Your task to perform on an android device: change the clock display to analog Image 0: 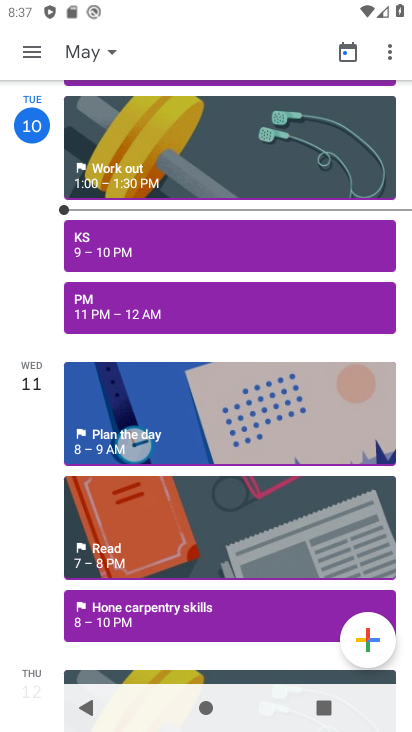
Step 0: press home button
Your task to perform on an android device: change the clock display to analog Image 1: 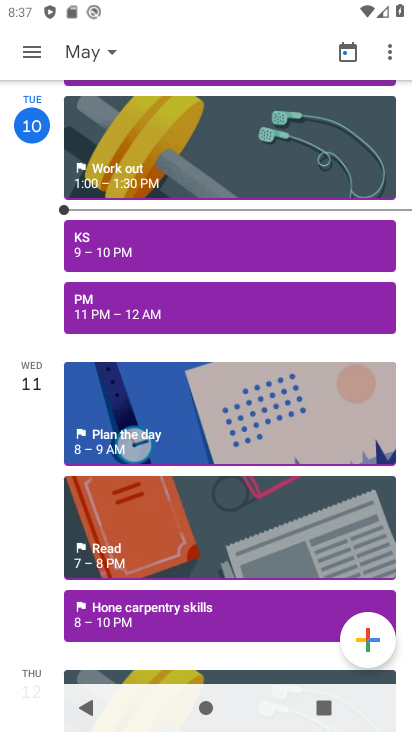
Step 1: press home button
Your task to perform on an android device: change the clock display to analog Image 2: 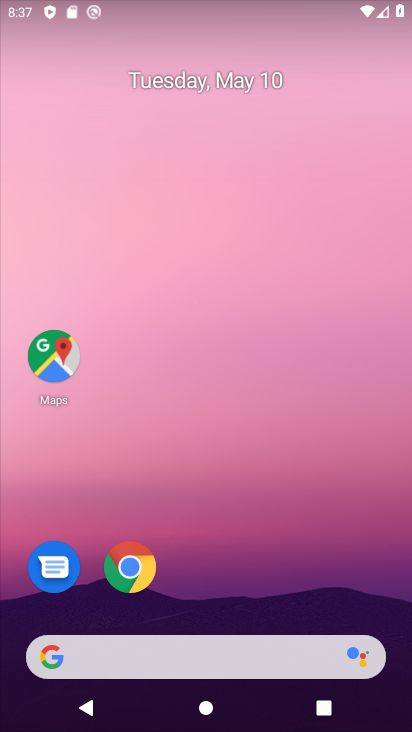
Step 2: drag from (249, 584) to (301, 62)
Your task to perform on an android device: change the clock display to analog Image 3: 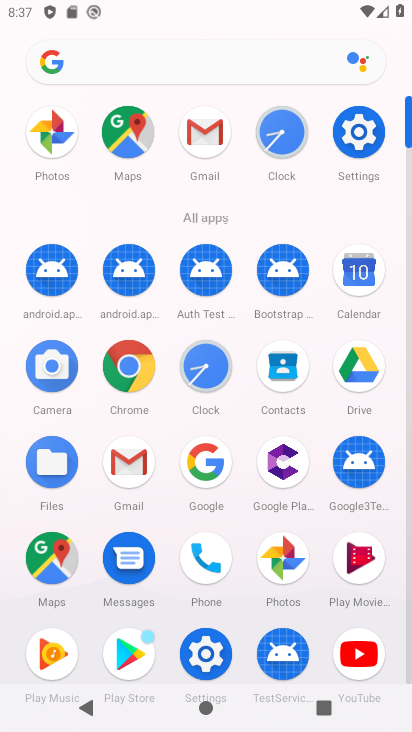
Step 3: click (281, 140)
Your task to perform on an android device: change the clock display to analog Image 4: 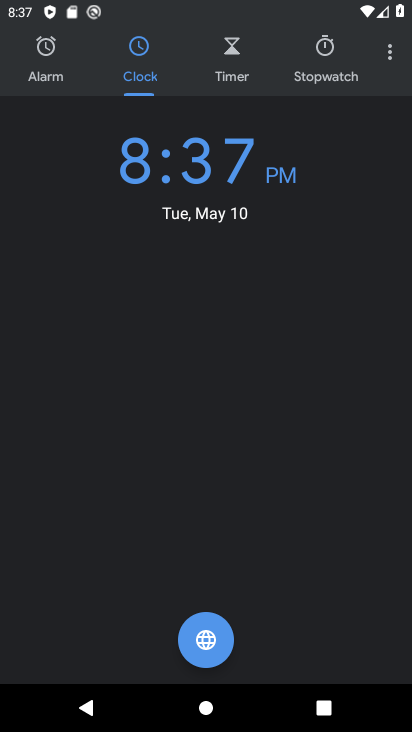
Step 4: click (391, 41)
Your task to perform on an android device: change the clock display to analog Image 5: 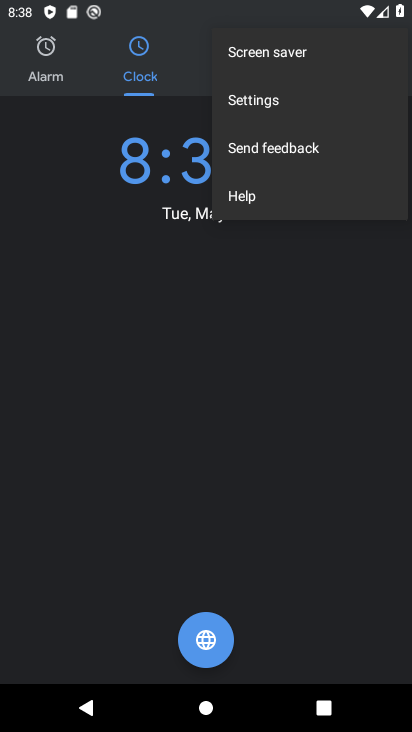
Step 5: click (261, 118)
Your task to perform on an android device: change the clock display to analog Image 6: 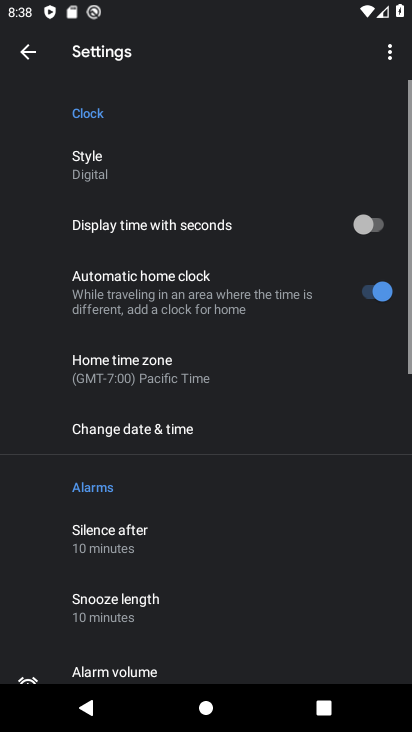
Step 6: click (96, 177)
Your task to perform on an android device: change the clock display to analog Image 7: 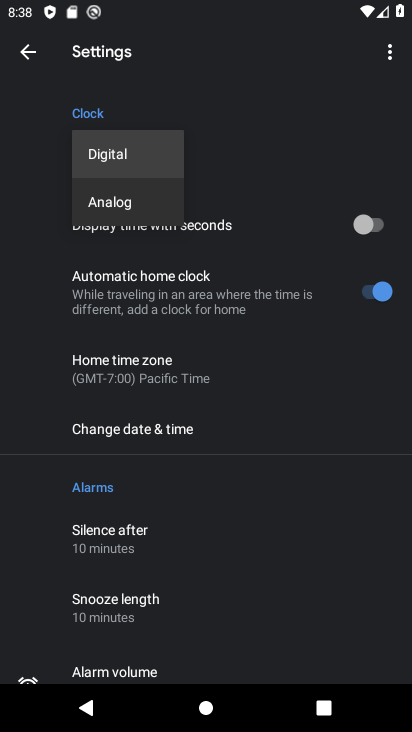
Step 7: click (107, 207)
Your task to perform on an android device: change the clock display to analog Image 8: 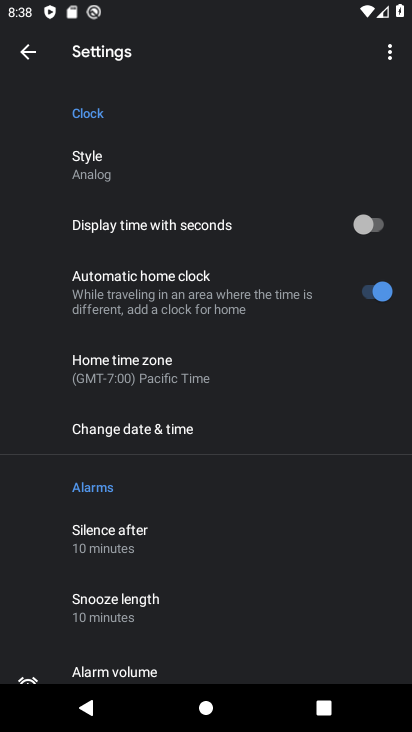
Step 8: task complete